Your task to perform on an android device: Go to CNN.com Image 0: 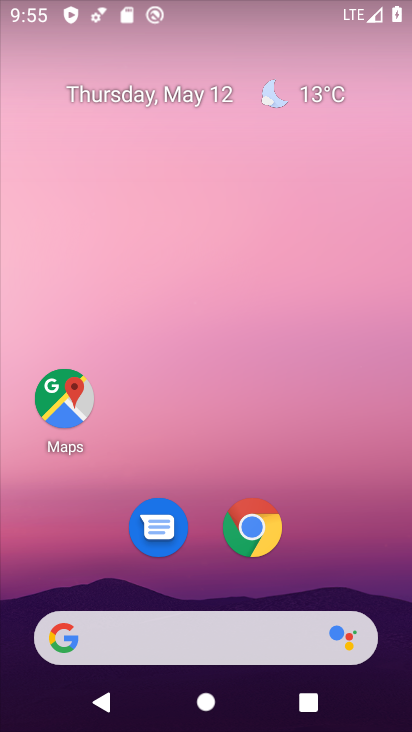
Step 0: drag from (336, 568) to (213, 130)
Your task to perform on an android device: Go to CNN.com Image 1: 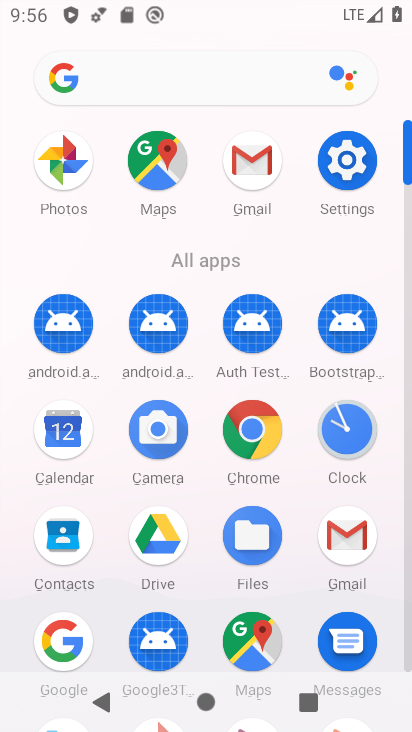
Step 1: click (252, 426)
Your task to perform on an android device: Go to CNN.com Image 2: 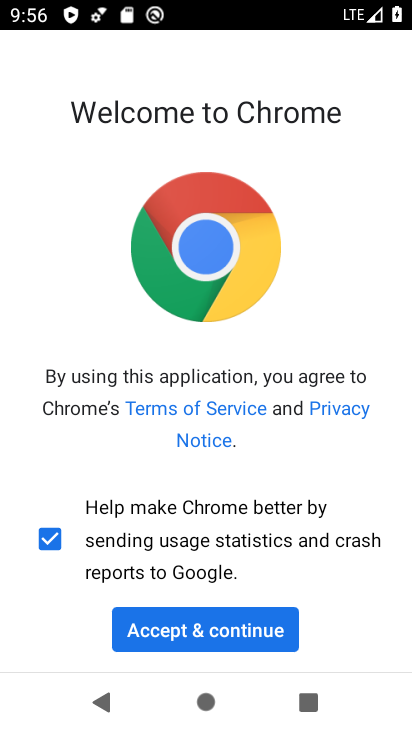
Step 2: click (214, 627)
Your task to perform on an android device: Go to CNN.com Image 3: 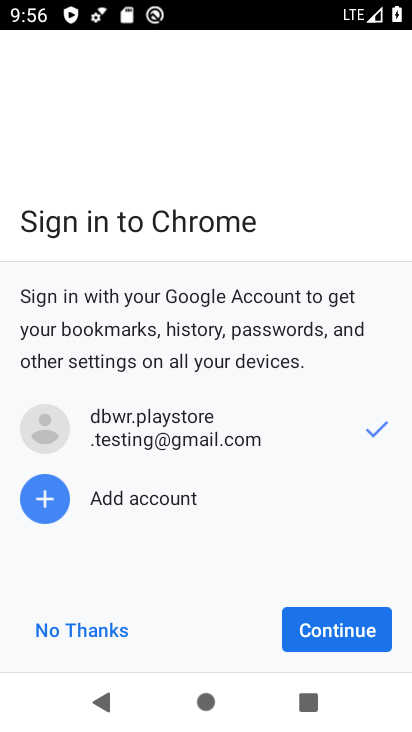
Step 3: click (332, 628)
Your task to perform on an android device: Go to CNN.com Image 4: 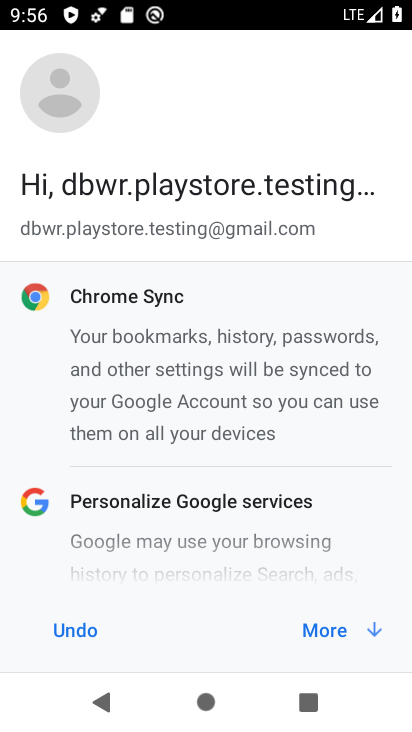
Step 4: click (332, 628)
Your task to perform on an android device: Go to CNN.com Image 5: 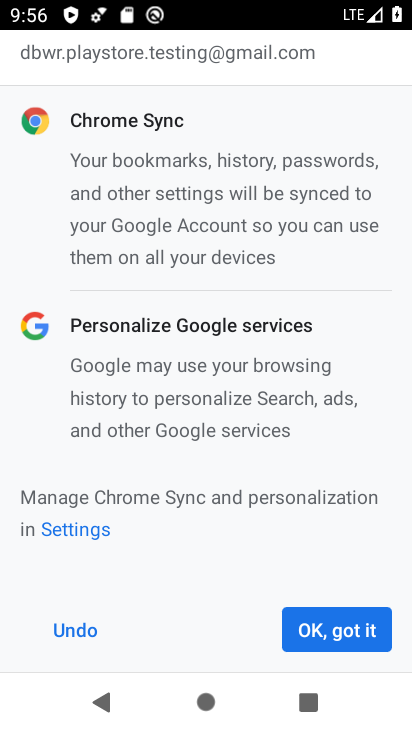
Step 5: click (332, 628)
Your task to perform on an android device: Go to CNN.com Image 6: 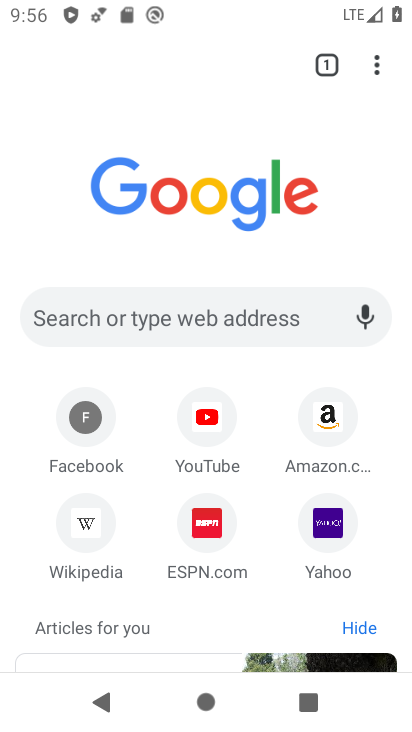
Step 6: click (196, 319)
Your task to perform on an android device: Go to CNN.com Image 7: 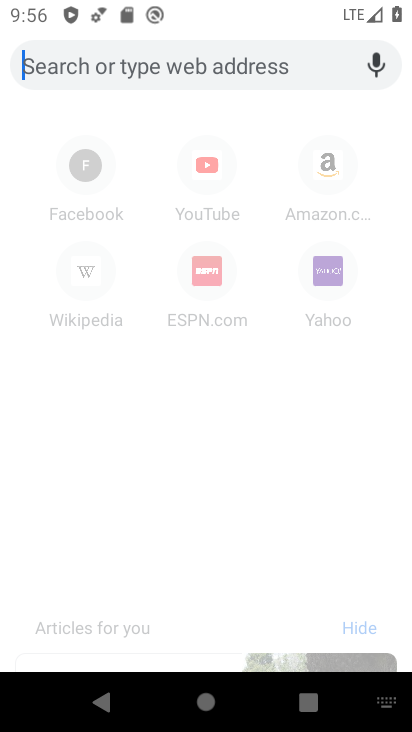
Step 7: type "CNN.com"
Your task to perform on an android device: Go to CNN.com Image 8: 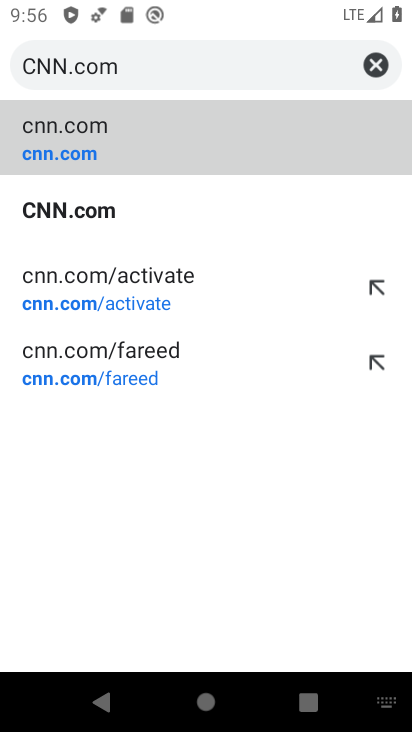
Step 8: click (96, 208)
Your task to perform on an android device: Go to CNN.com Image 9: 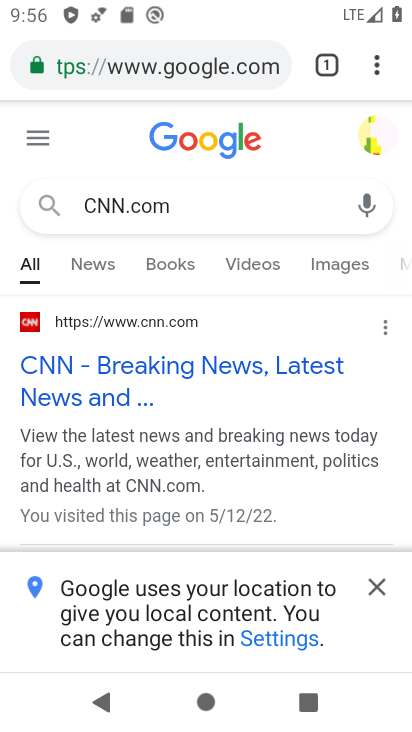
Step 9: click (375, 586)
Your task to perform on an android device: Go to CNN.com Image 10: 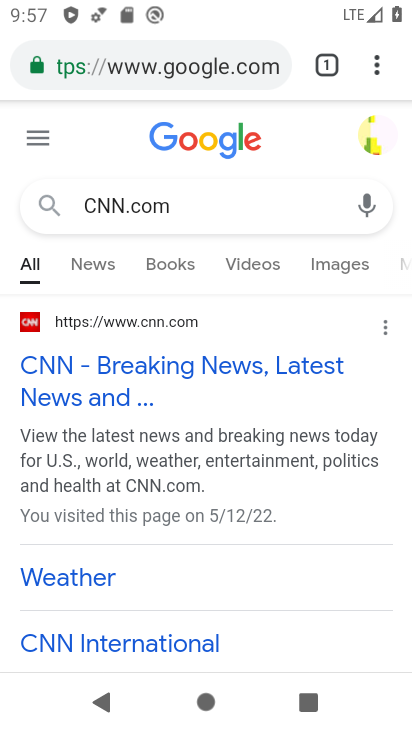
Step 10: click (123, 365)
Your task to perform on an android device: Go to CNN.com Image 11: 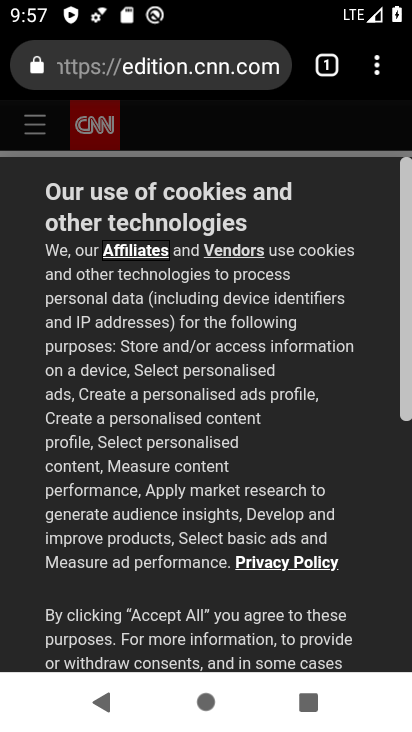
Step 11: task complete